Your task to perform on an android device: Open Chrome and go to settings Image 0: 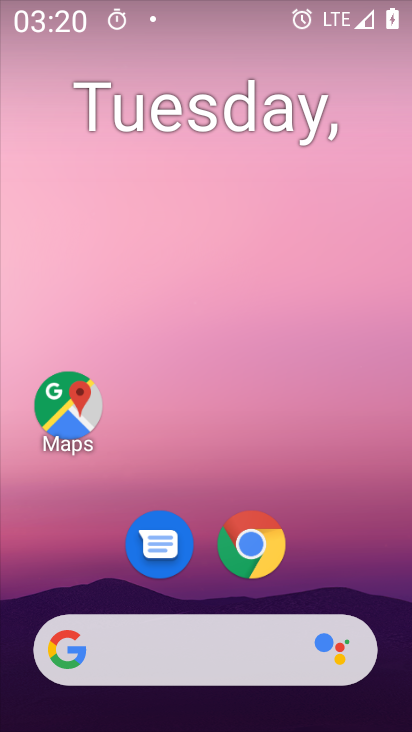
Step 0: drag from (309, 416) to (213, 66)
Your task to perform on an android device: Open Chrome and go to settings Image 1: 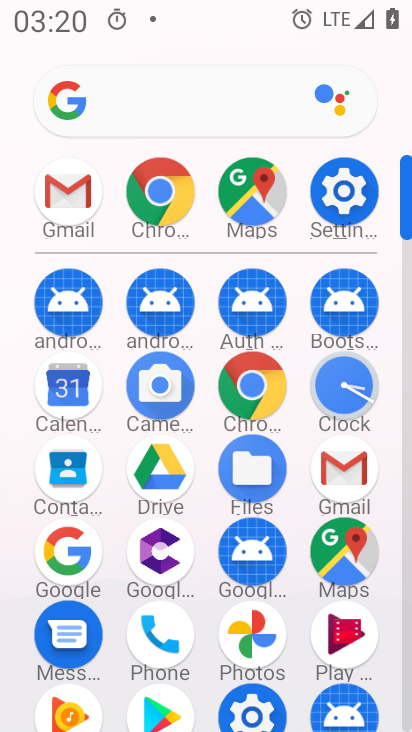
Step 1: drag from (16, 546) to (14, 179)
Your task to perform on an android device: Open Chrome and go to settings Image 2: 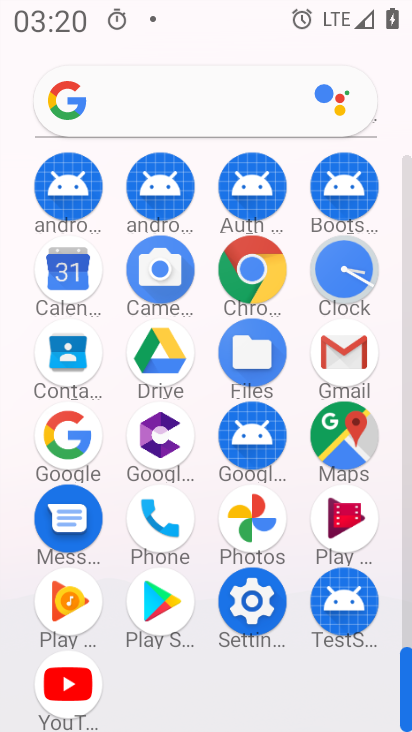
Step 2: click (248, 264)
Your task to perform on an android device: Open Chrome and go to settings Image 3: 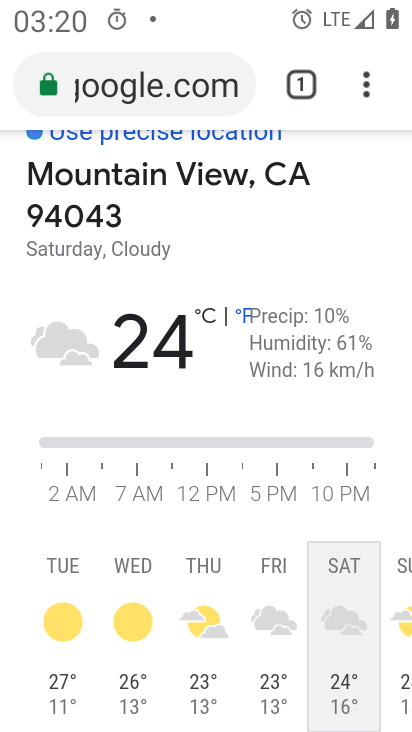
Step 3: task complete